Your task to perform on an android device: turn off javascript in the chrome app Image 0: 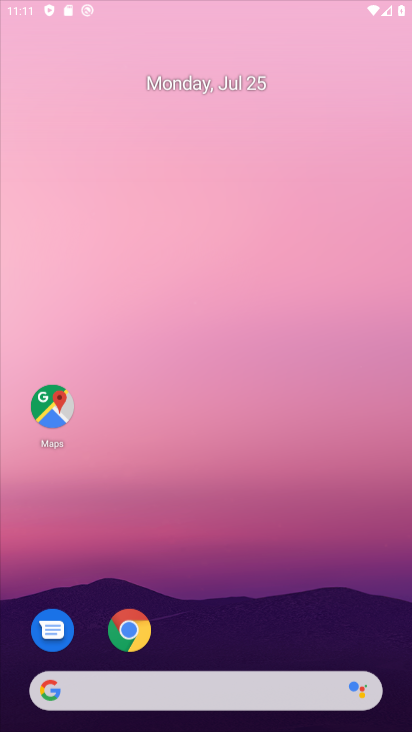
Step 0: click (221, 129)
Your task to perform on an android device: turn off javascript in the chrome app Image 1: 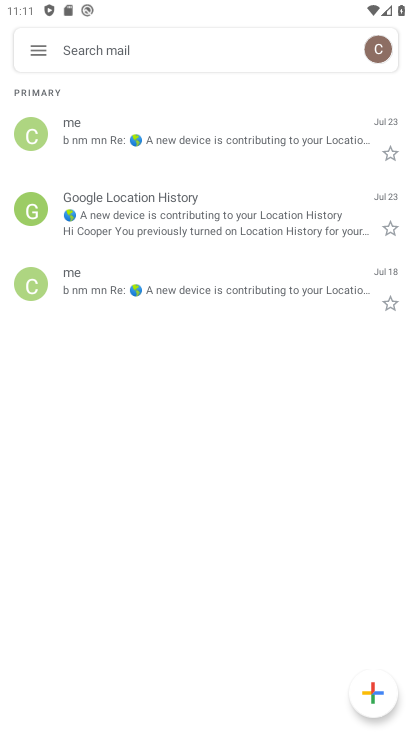
Step 1: press back button
Your task to perform on an android device: turn off javascript in the chrome app Image 2: 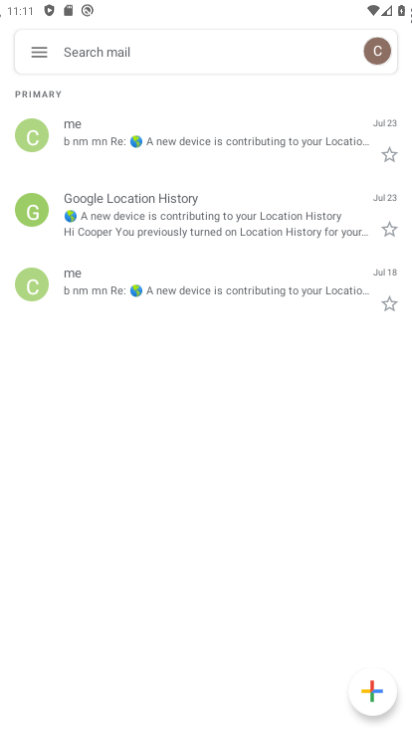
Step 2: press back button
Your task to perform on an android device: turn off javascript in the chrome app Image 3: 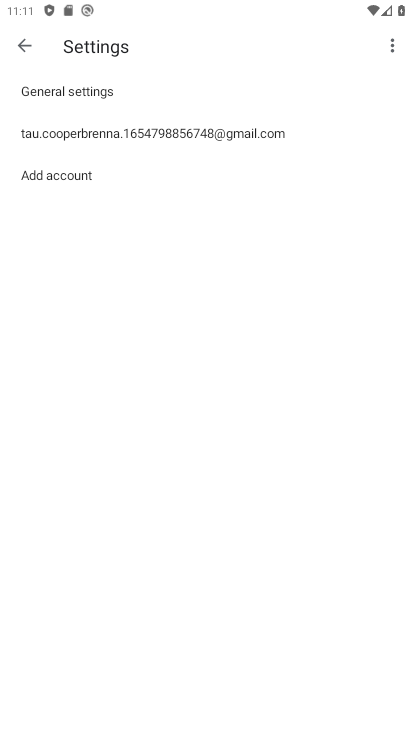
Step 3: press back button
Your task to perform on an android device: turn off javascript in the chrome app Image 4: 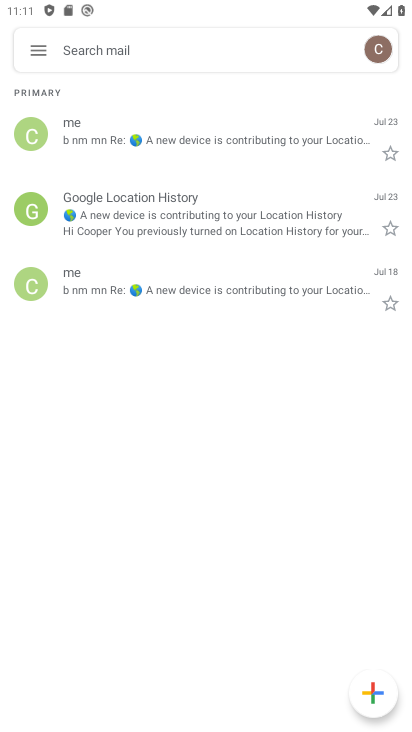
Step 4: click (26, 47)
Your task to perform on an android device: turn off javascript in the chrome app Image 5: 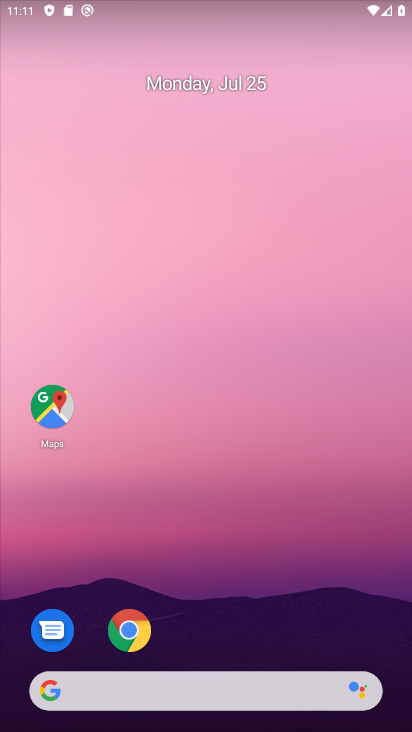
Step 5: drag from (206, 626) to (149, 100)
Your task to perform on an android device: turn off javascript in the chrome app Image 6: 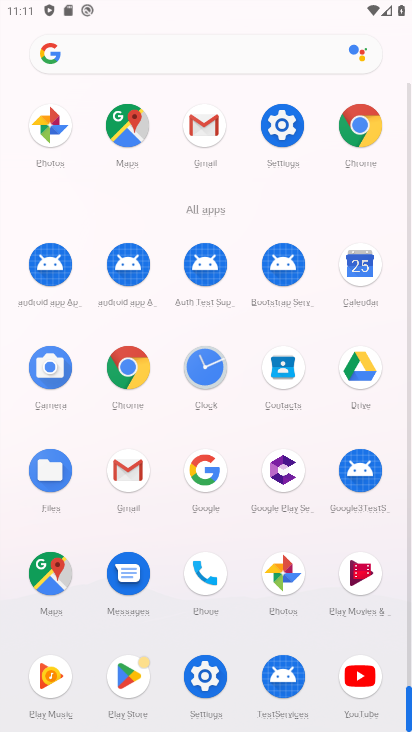
Step 6: click (346, 128)
Your task to perform on an android device: turn off javascript in the chrome app Image 7: 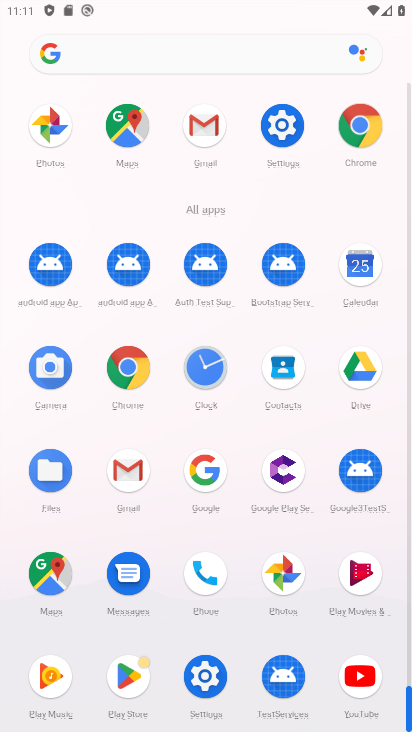
Step 7: click (347, 123)
Your task to perform on an android device: turn off javascript in the chrome app Image 8: 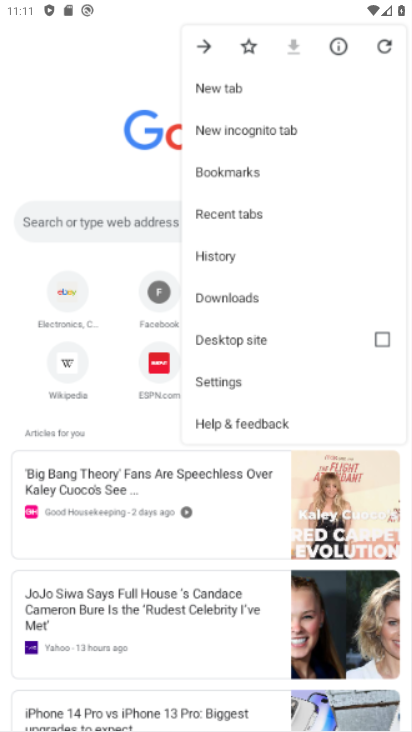
Step 8: click (347, 121)
Your task to perform on an android device: turn off javascript in the chrome app Image 9: 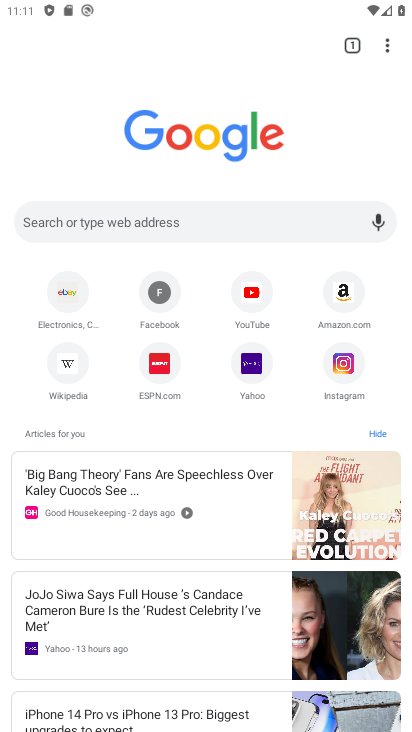
Step 9: drag from (388, 47) to (227, 381)
Your task to perform on an android device: turn off javascript in the chrome app Image 10: 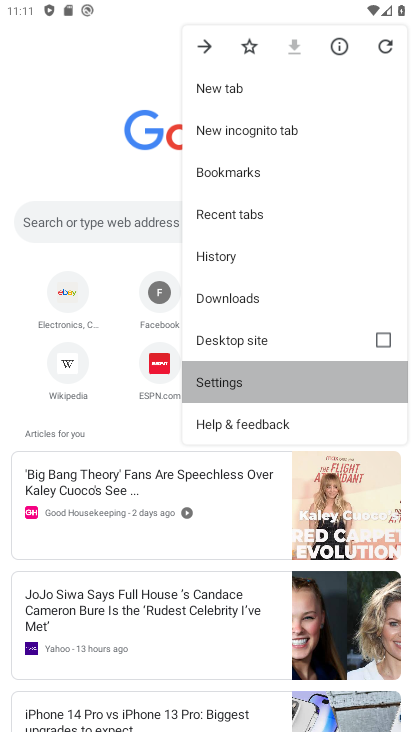
Step 10: click (230, 378)
Your task to perform on an android device: turn off javascript in the chrome app Image 11: 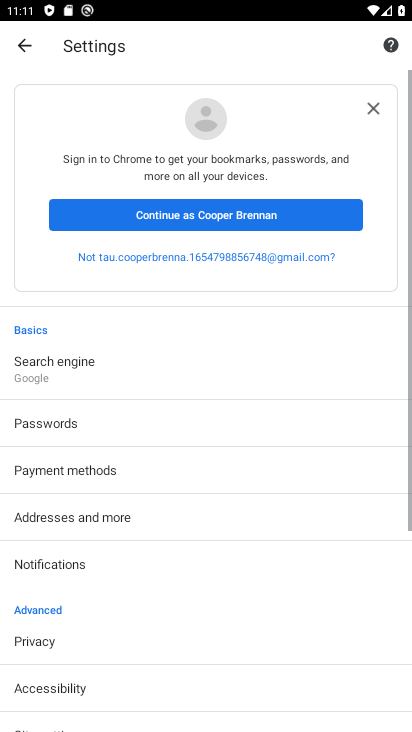
Step 11: drag from (146, 575) to (126, 200)
Your task to perform on an android device: turn off javascript in the chrome app Image 12: 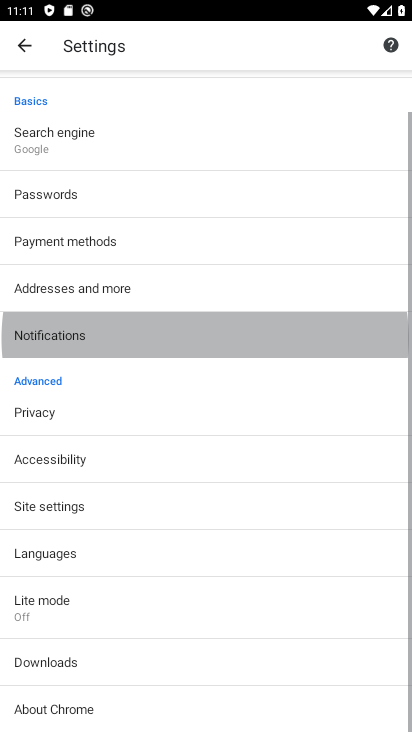
Step 12: drag from (167, 451) to (175, 208)
Your task to perform on an android device: turn off javascript in the chrome app Image 13: 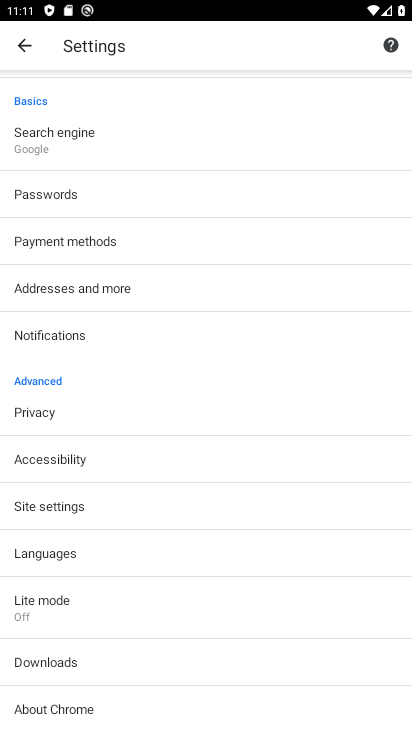
Step 13: click (57, 544)
Your task to perform on an android device: turn off javascript in the chrome app Image 14: 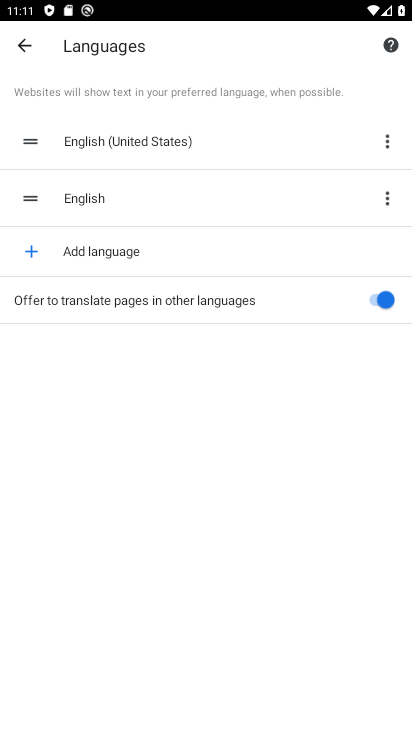
Step 14: click (380, 305)
Your task to perform on an android device: turn off javascript in the chrome app Image 15: 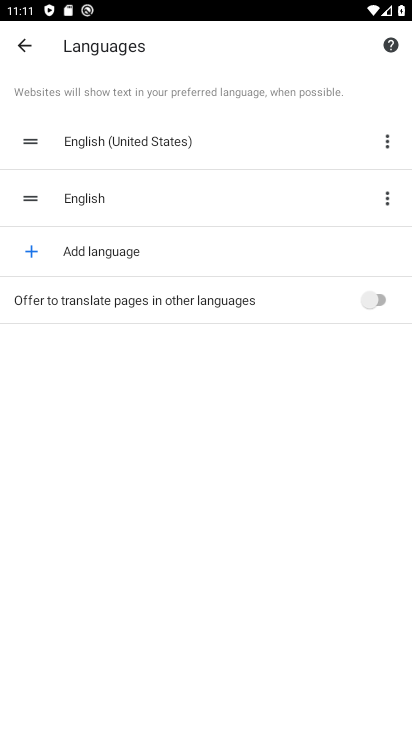
Step 15: task complete